Your task to perform on an android device: Go to Android settings Image 0: 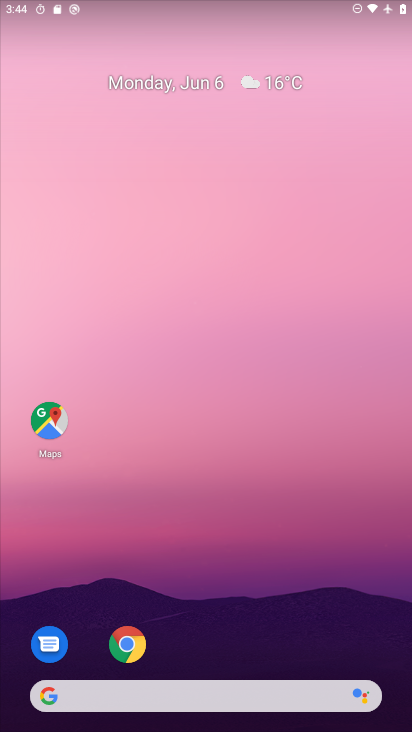
Step 0: drag from (269, 598) to (286, 114)
Your task to perform on an android device: Go to Android settings Image 1: 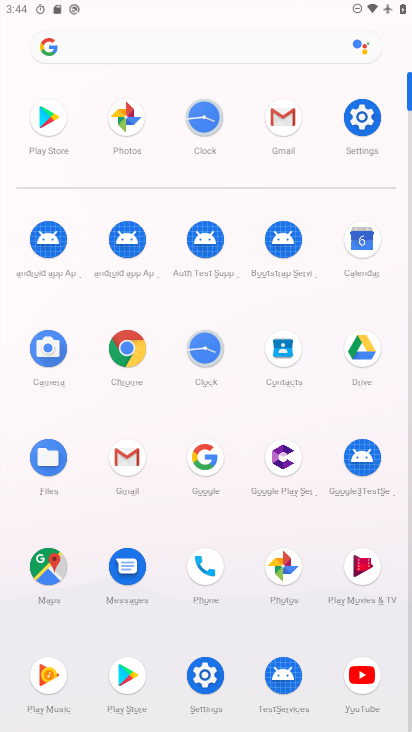
Step 1: click (363, 113)
Your task to perform on an android device: Go to Android settings Image 2: 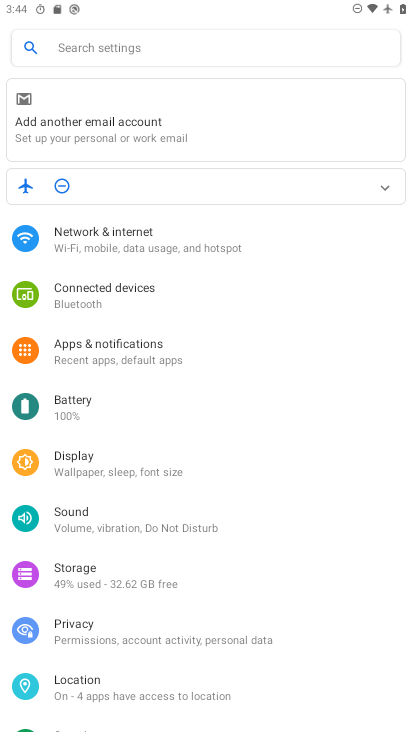
Step 2: task complete